Your task to perform on an android device: Search for vegetarian restaurants on Maps Image 0: 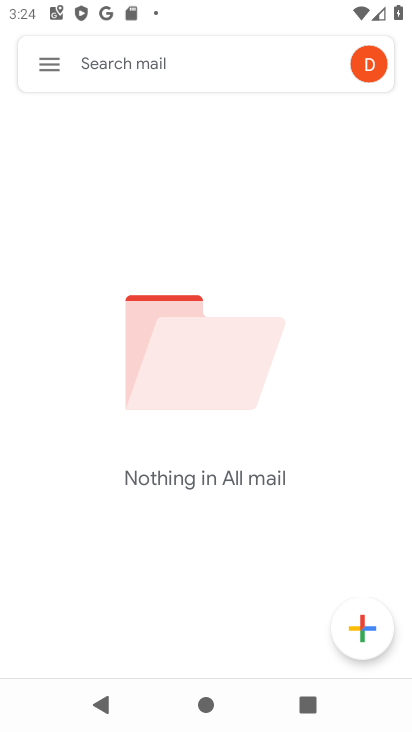
Step 0: press home button
Your task to perform on an android device: Search for vegetarian restaurants on Maps Image 1: 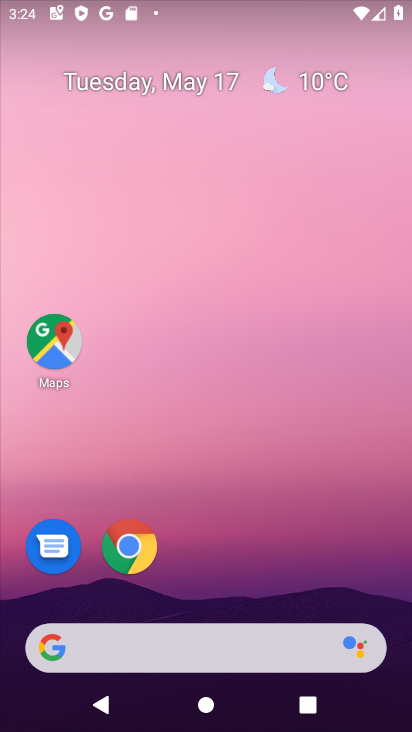
Step 1: click (47, 339)
Your task to perform on an android device: Search for vegetarian restaurants on Maps Image 2: 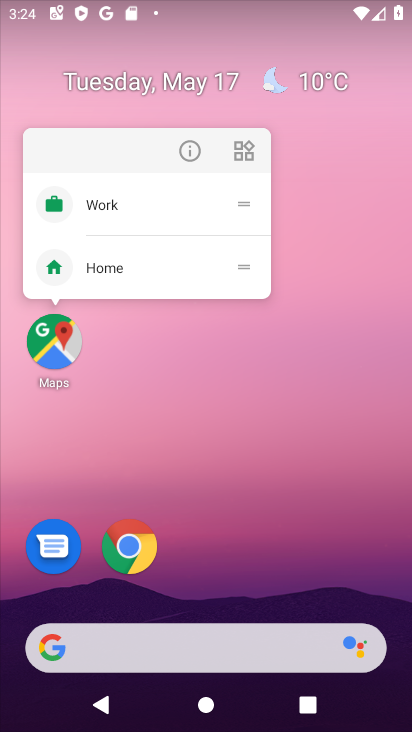
Step 2: click (49, 342)
Your task to perform on an android device: Search for vegetarian restaurants on Maps Image 3: 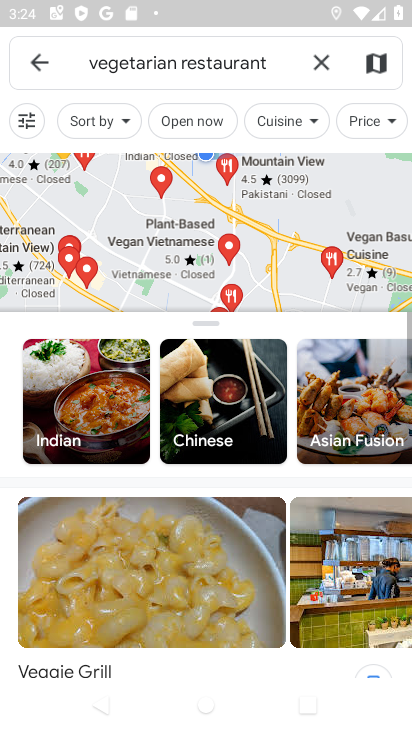
Step 3: task complete